Your task to perform on an android device: Is it going to rain today? Image 0: 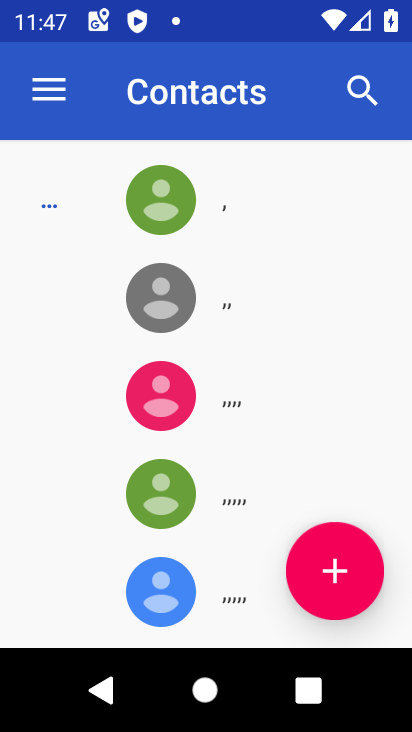
Step 0: drag from (325, 518) to (309, 188)
Your task to perform on an android device: Is it going to rain today? Image 1: 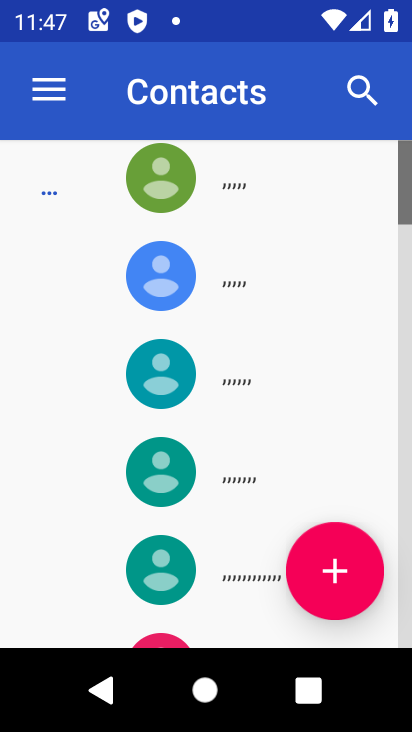
Step 1: press home button
Your task to perform on an android device: Is it going to rain today? Image 2: 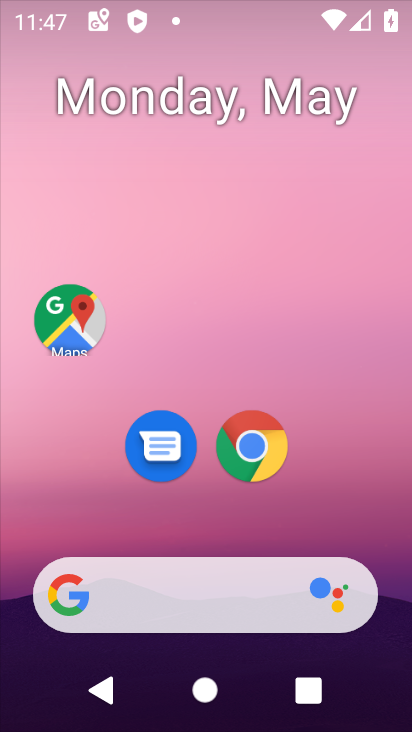
Step 2: drag from (314, 512) to (334, 160)
Your task to perform on an android device: Is it going to rain today? Image 3: 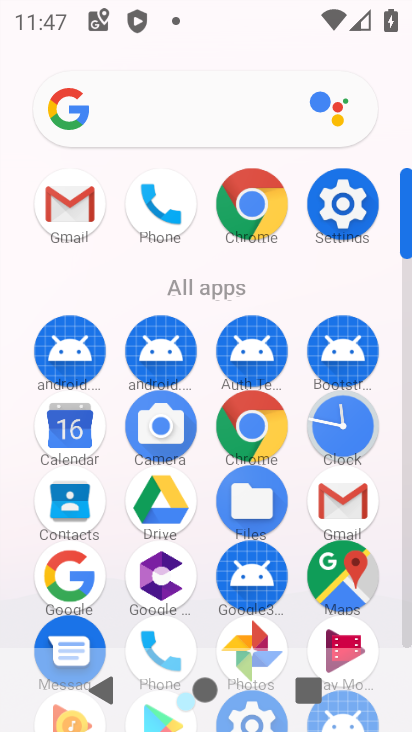
Step 3: click (238, 205)
Your task to perform on an android device: Is it going to rain today? Image 4: 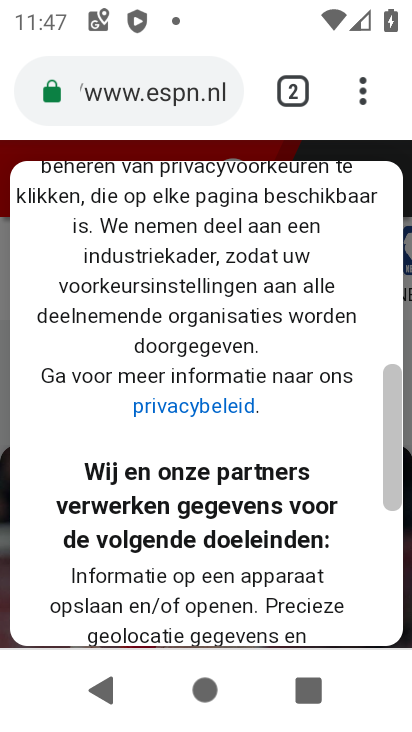
Step 4: click (350, 86)
Your task to perform on an android device: Is it going to rain today? Image 5: 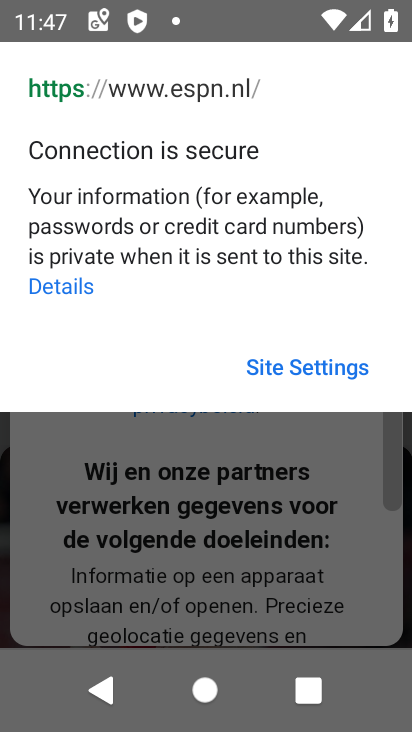
Step 5: press back button
Your task to perform on an android device: Is it going to rain today? Image 6: 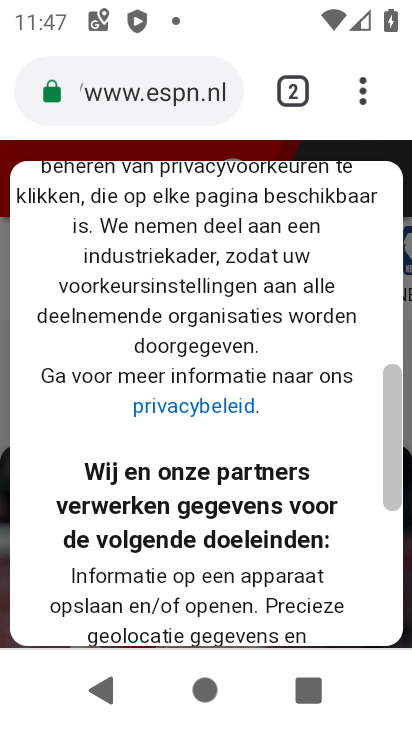
Step 6: click (353, 94)
Your task to perform on an android device: Is it going to rain today? Image 7: 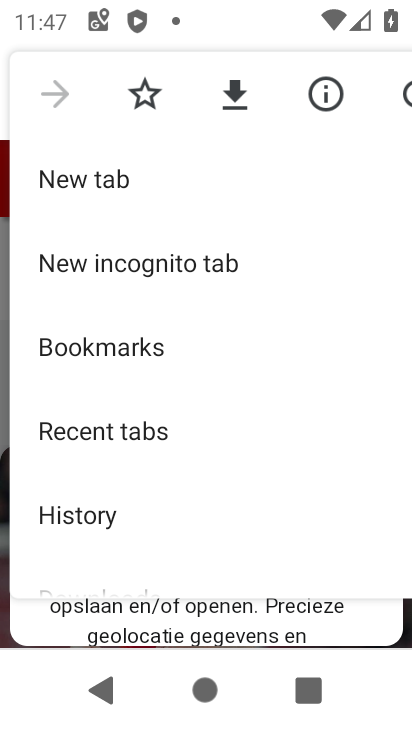
Step 7: click (164, 174)
Your task to perform on an android device: Is it going to rain today? Image 8: 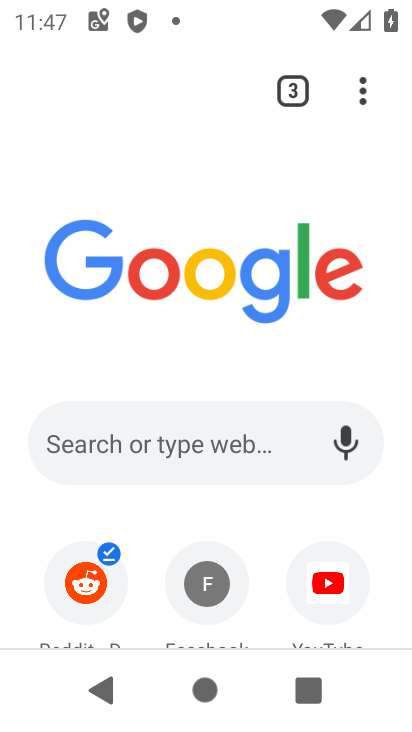
Step 8: click (111, 436)
Your task to perform on an android device: Is it going to rain today? Image 9: 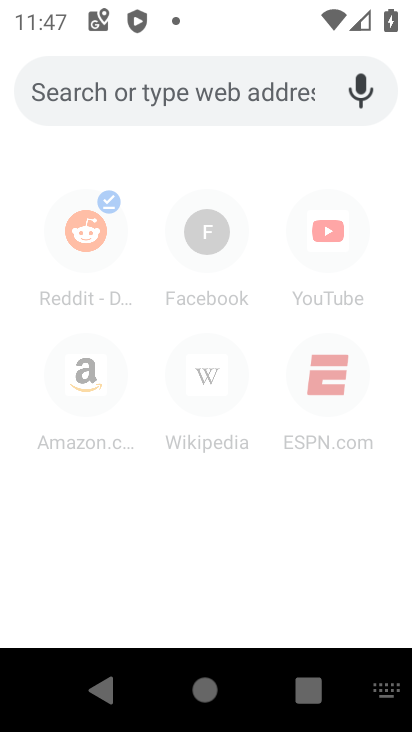
Step 9: type "Is it going to rain today?"
Your task to perform on an android device: Is it going to rain today? Image 10: 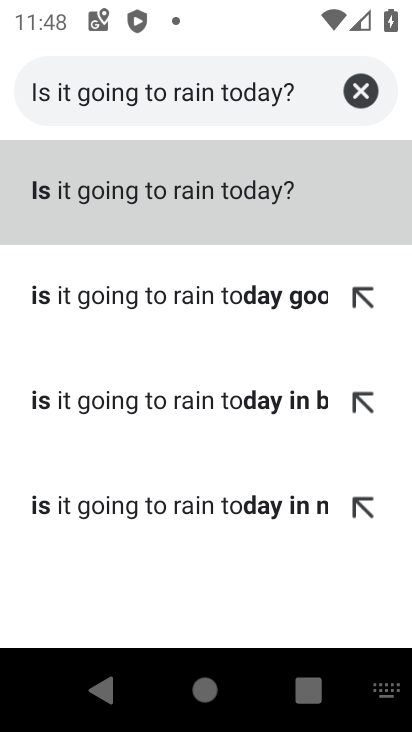
Step 10: click (230, 206)
Your task to perform on an android device: Is it going to rain today? Image 11: 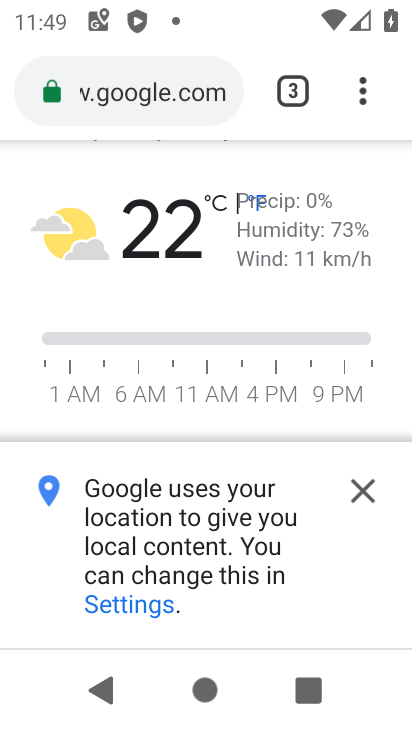
Step 11: task complete